Your task to perform on an android device: open app "Grab" (install if not already installed), go to login, and select forgot password Image 0: 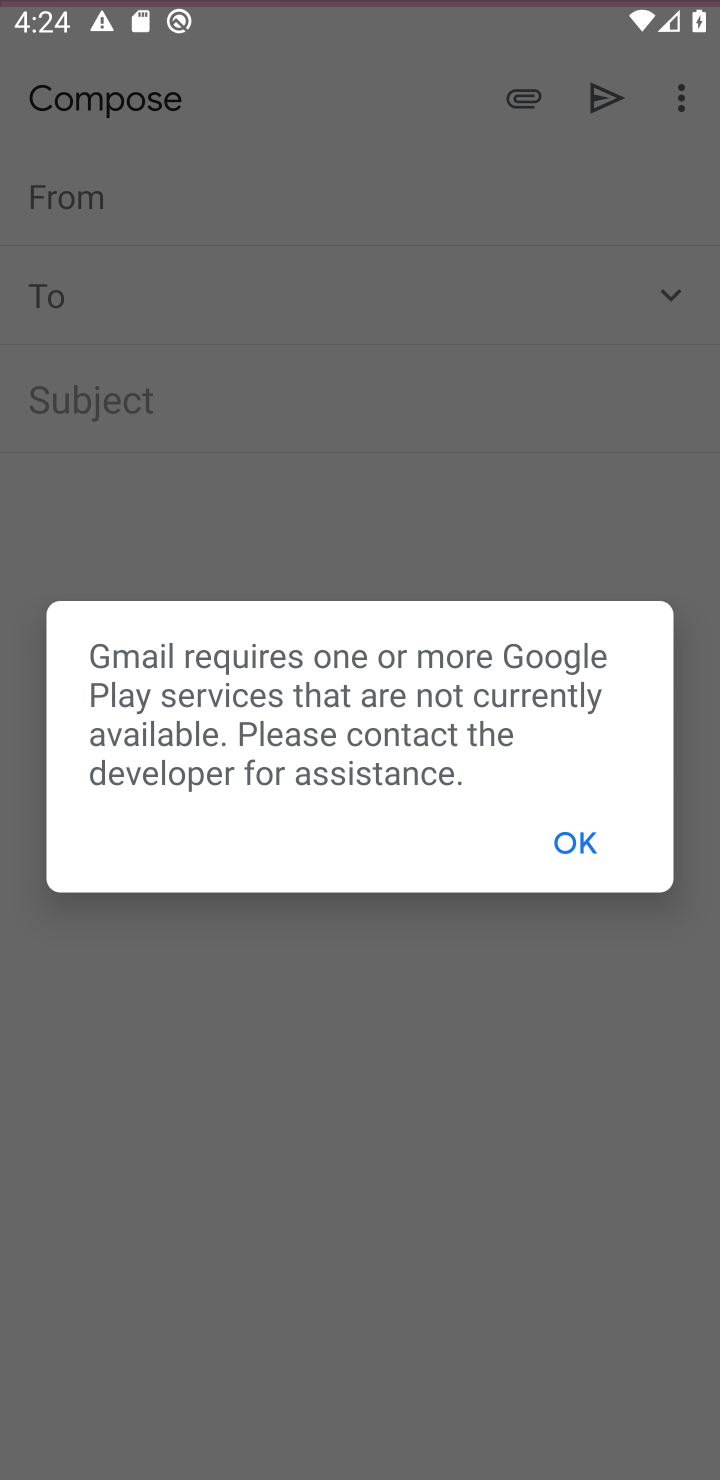
Step 0: press back button
Your task to perform on an android device: open app "Grab" (install if not already installed), go to login, and select forgot password Image 1: 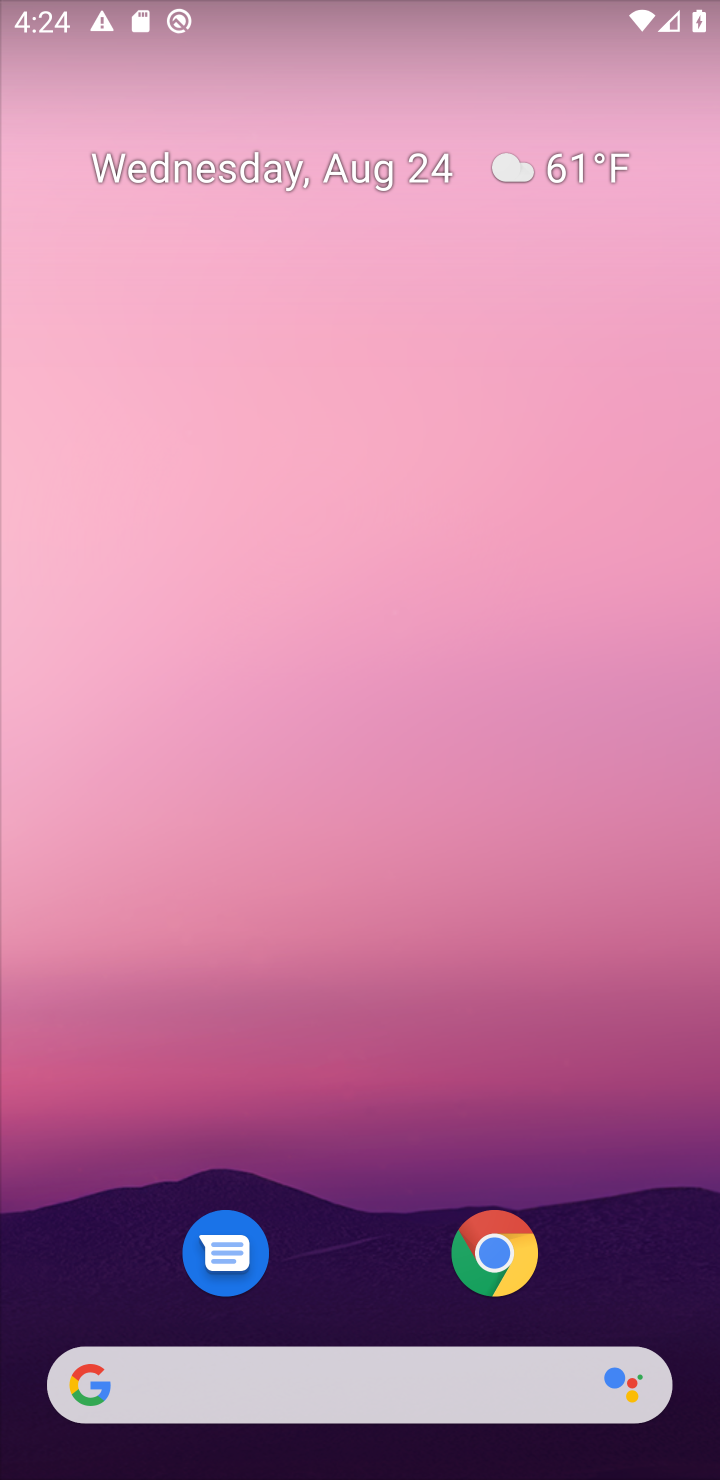
Step 1: drag from (433, 332) to (443, 215)
Your task to perform on an android device: open app "Grab" (install if not already installed), go to login, and select forgot password Image 2: 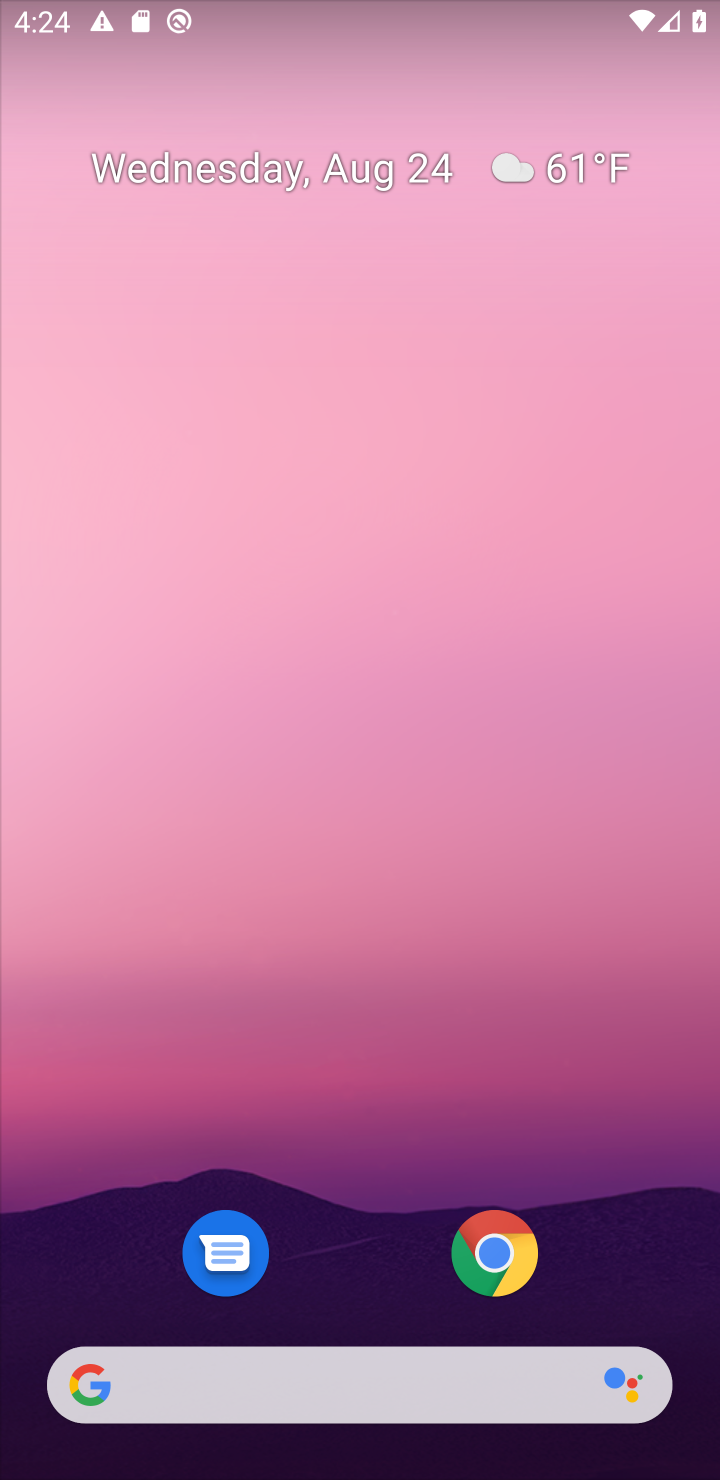
Step 2: drag from (347, 1135) to (436, 176)
Your task to perform on an android device: open app "Grab" (install if not already installed), go to login, and select forgot password Image 3: 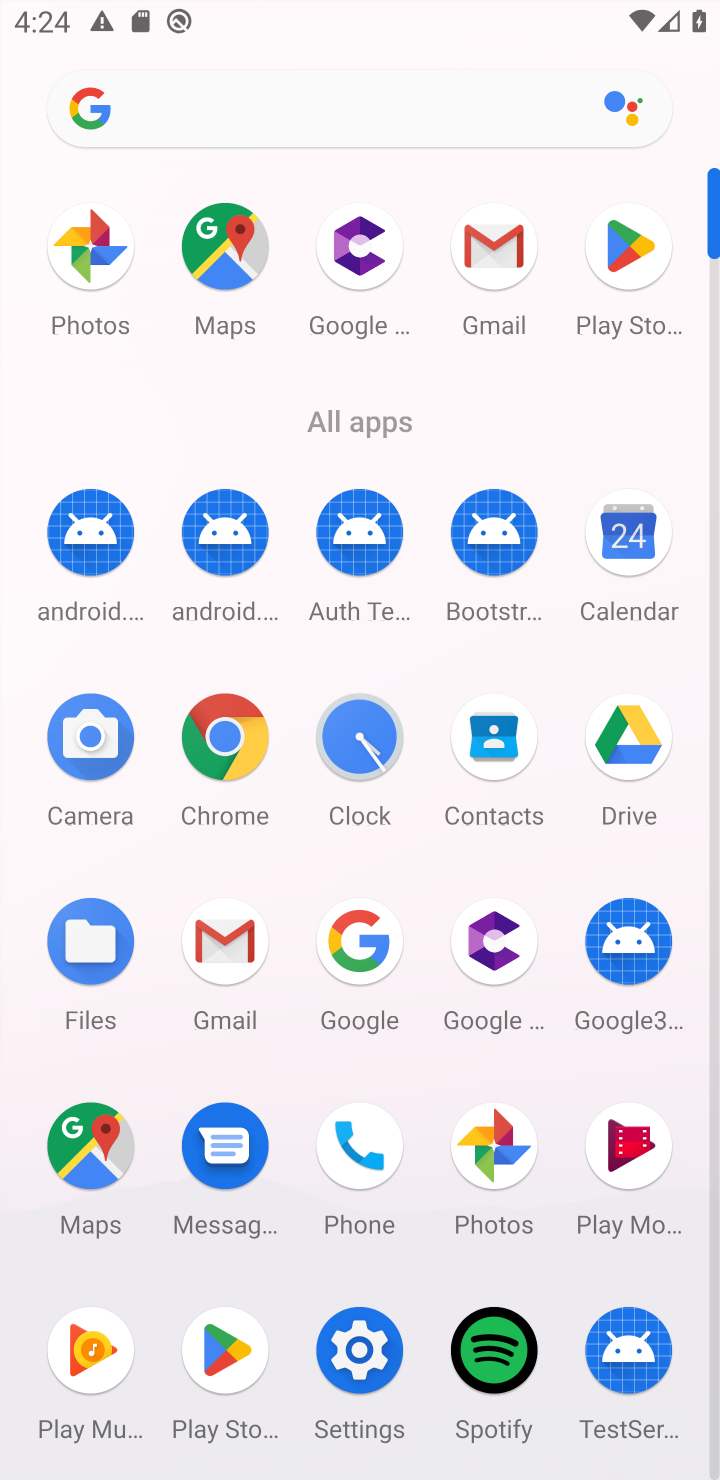
Step 3: click (627, 257)
Your task to perform on an android device: open app "Grab" (install if not already installed), go to login, and select forgot password Image 4: 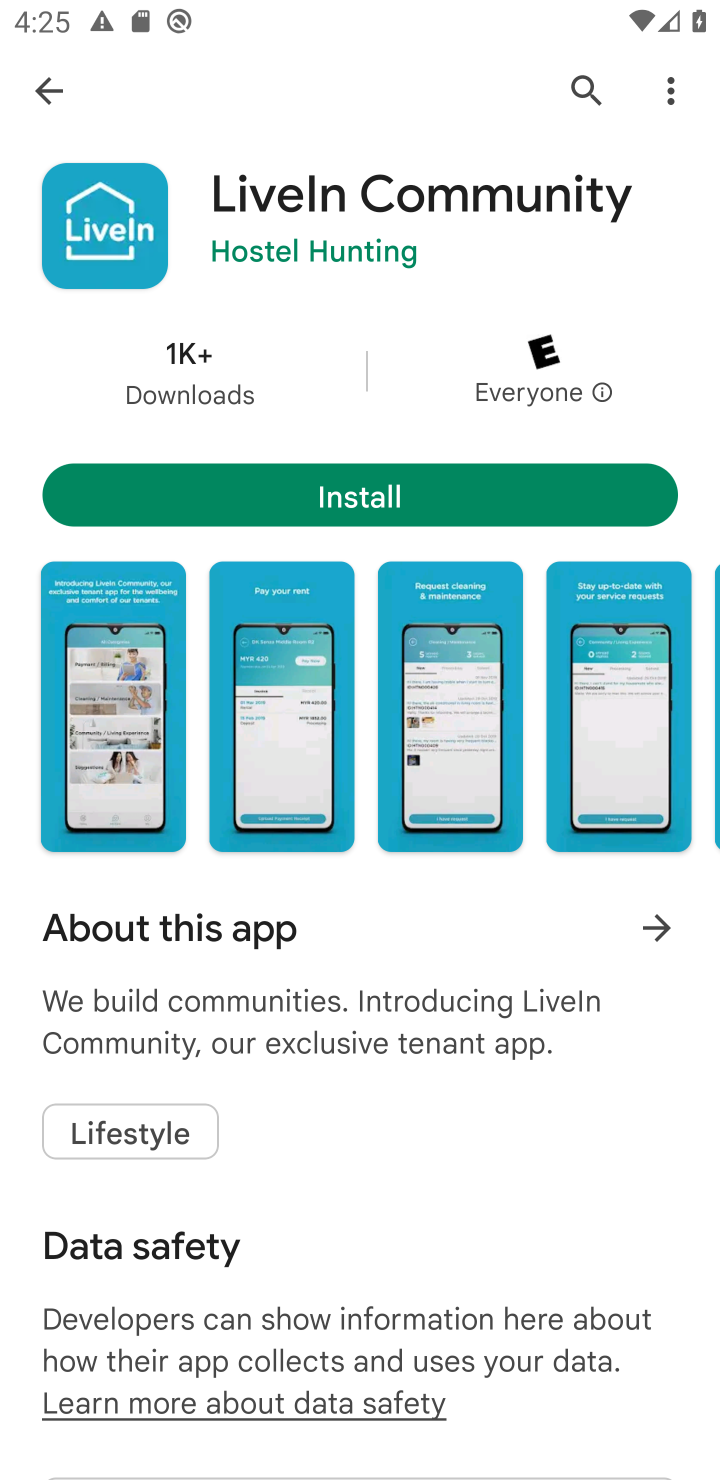
Step 4: click (607, 79)
Your task to perform on an android device: open app "Grab" (install if not already installed), go to login, and select forgot password Image 5: 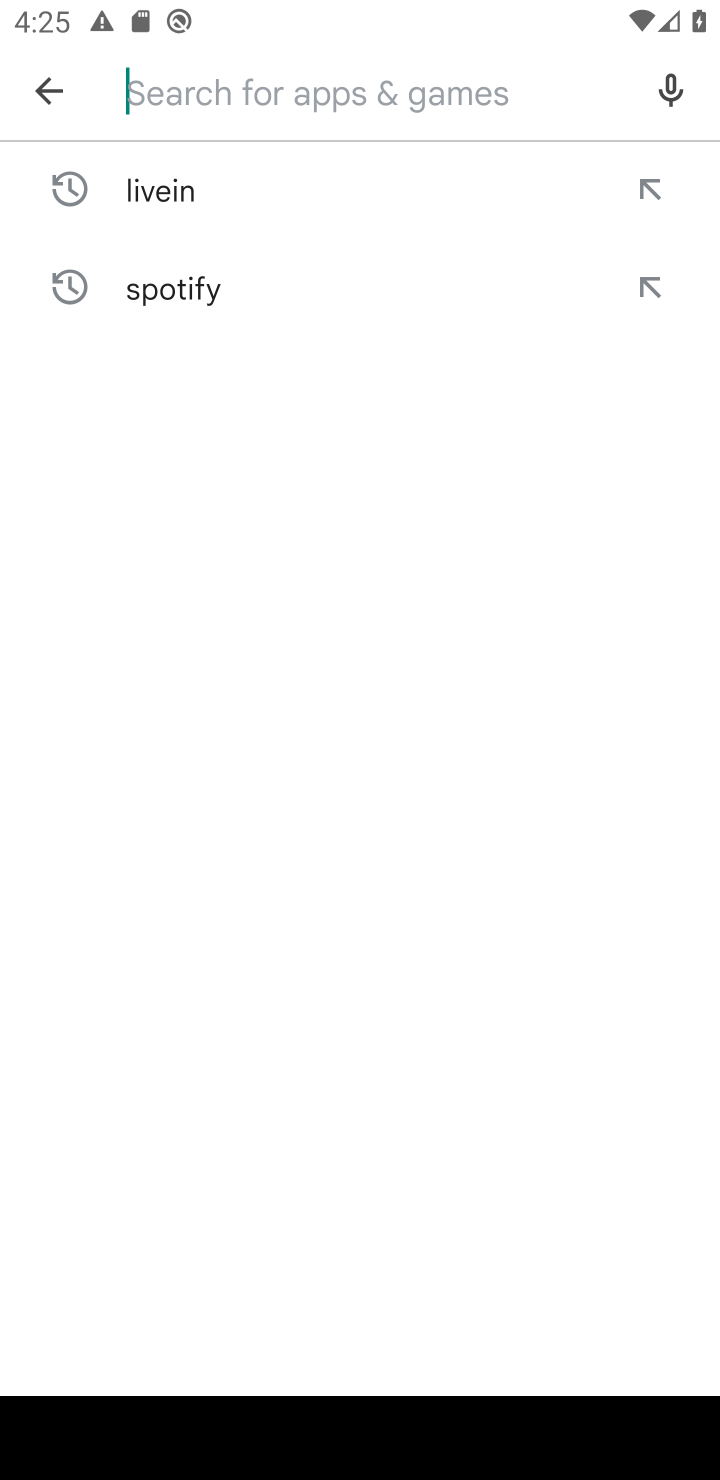
Step 5: click (207, 84)
Your task to perform on an android device: open app "Grab" (install if not already installed), go to login, and select forgot password Image 6: 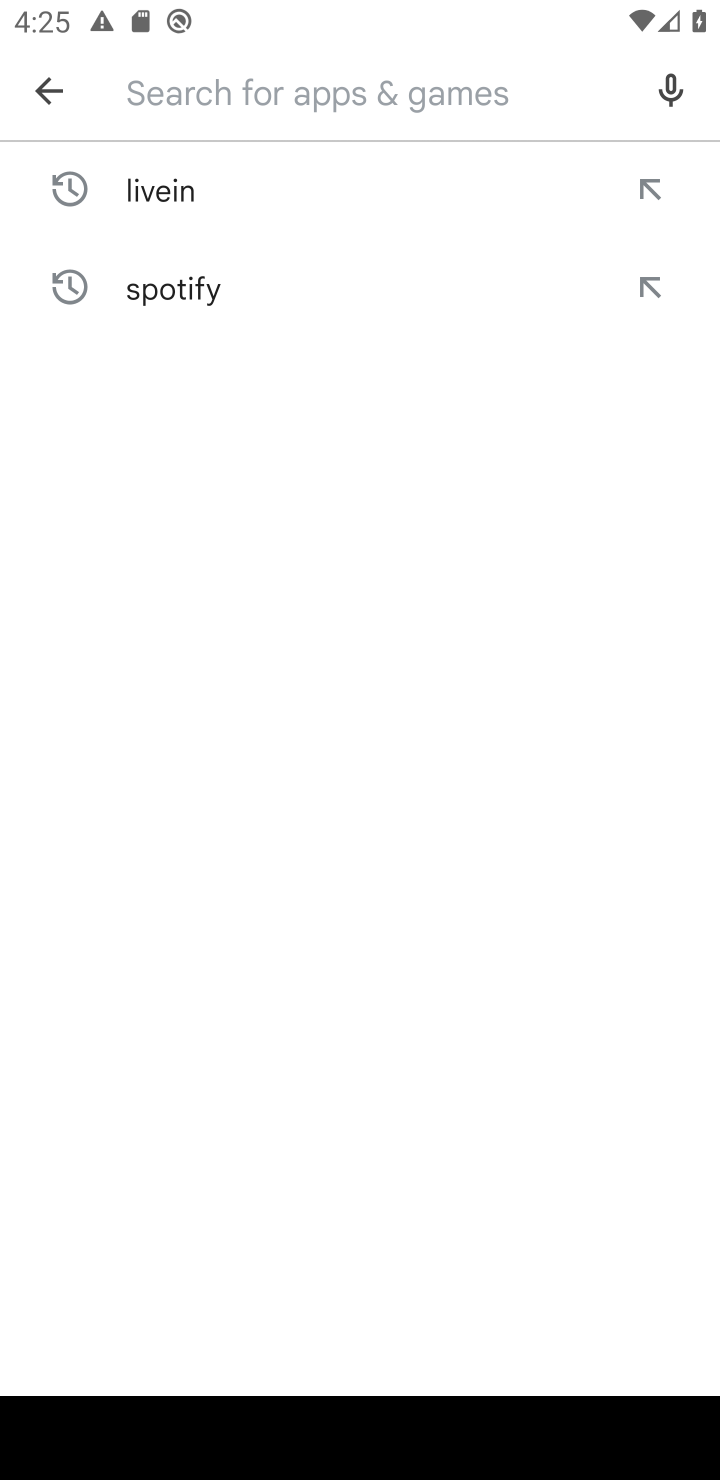
Step 6: type "Grab"
Your task to perform on an android device: open app "Grab" (install if not already installed), go to login, and select forgot password Image 7: 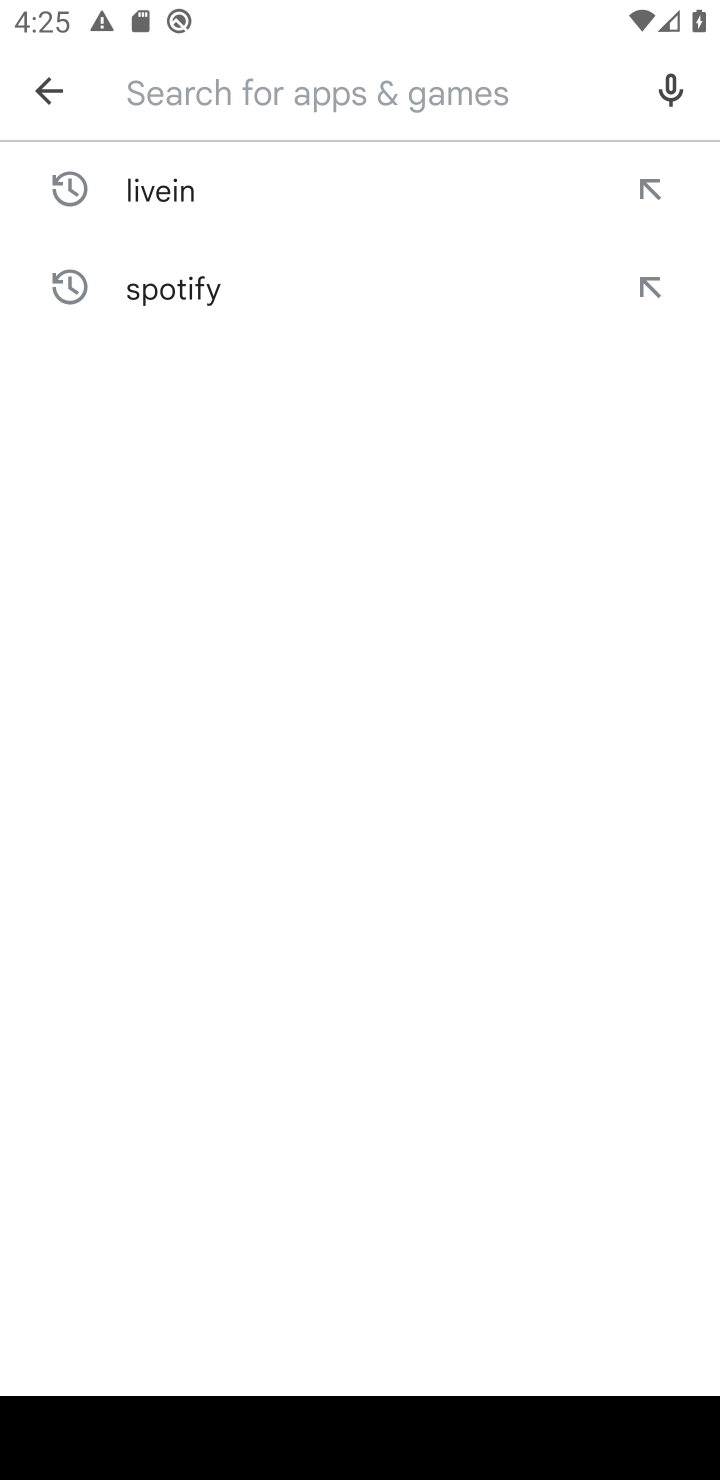
Step 7: click (479, 965)
Your task to perform on an android device: open app "Grab" (install if not already installed), go to login, and select forgot password Image 8: 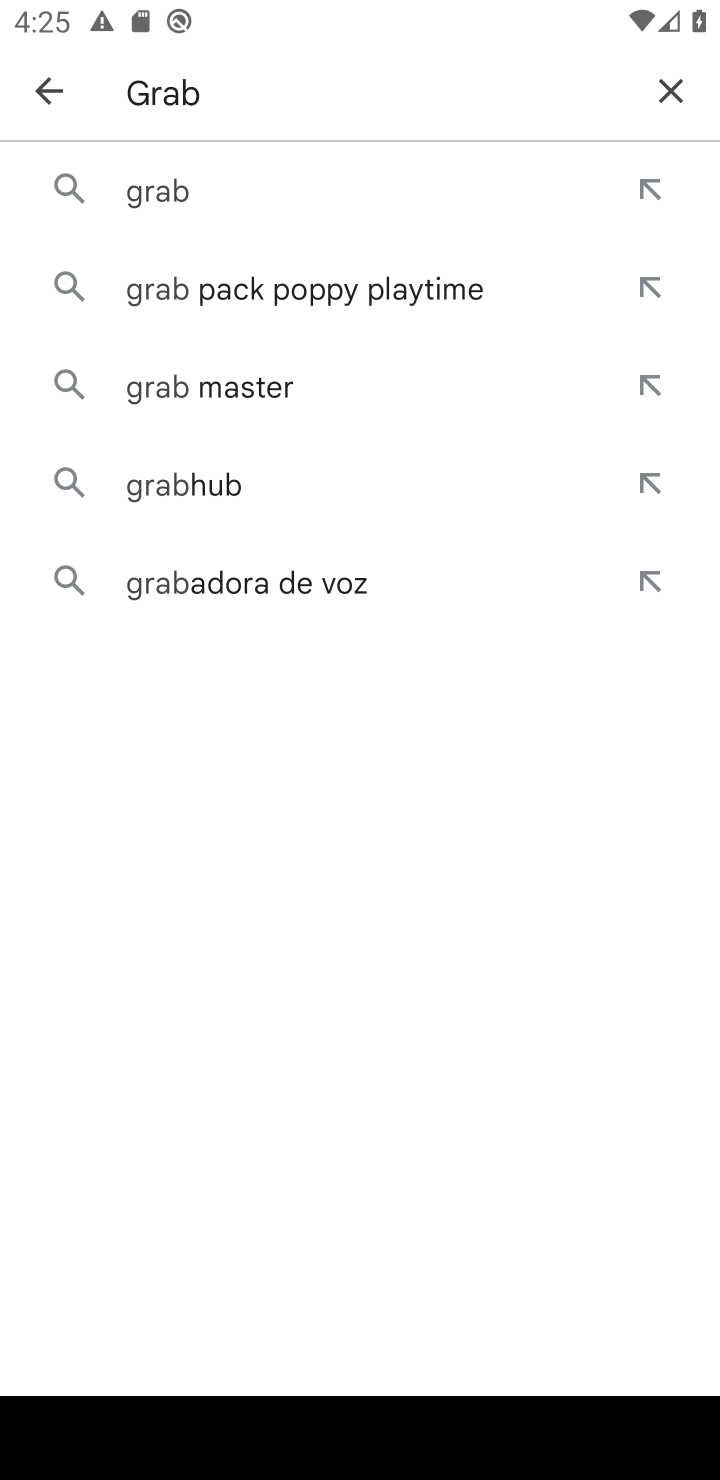
Step 8: click (196, 176)
Your task to perform on an android device: open app "Grab" (install if not already installed), go to login, and select forgot password Image 9: 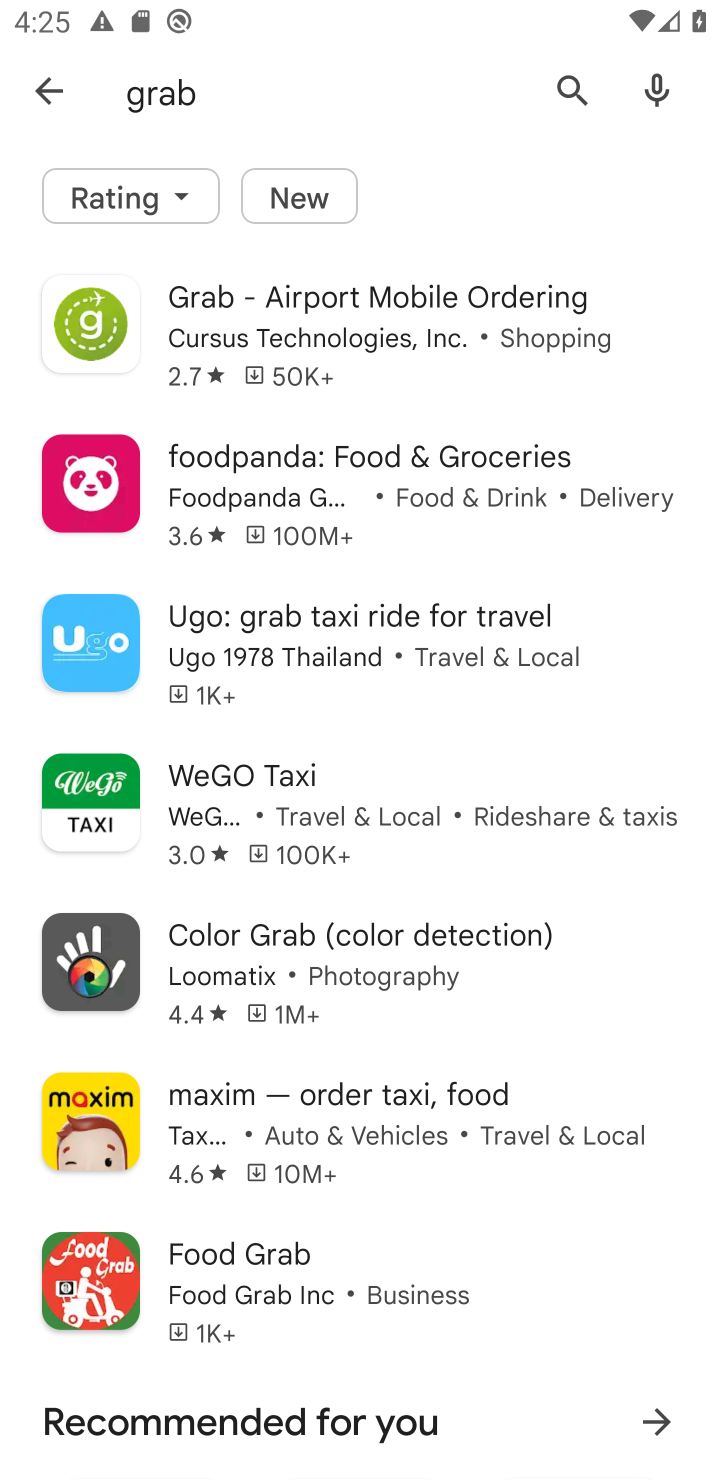
Step 9: click (346, 334)
Your task to perform on an android device: open app "Grab" (install if not already installed), go to login, and select forgot password Image 10: 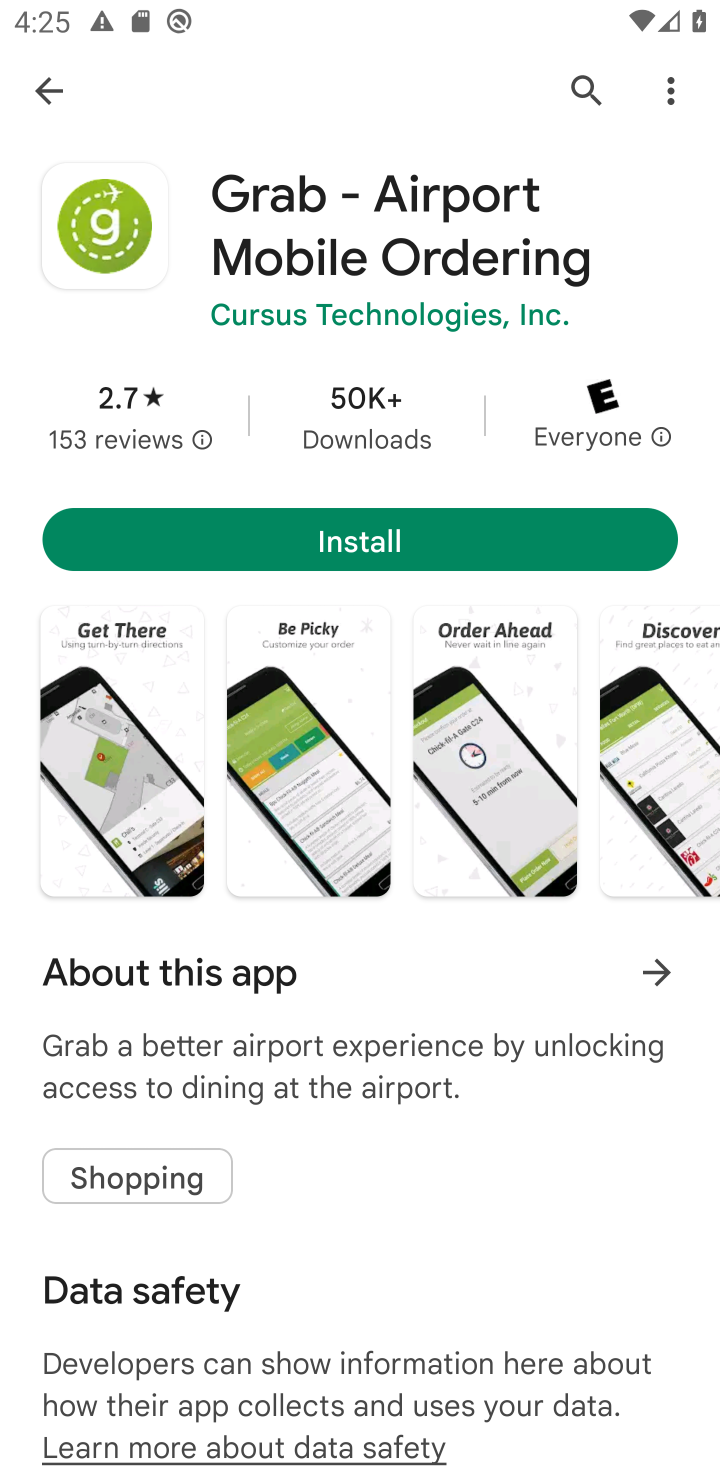
Step 10: click (311, 538)
Your task to perform on an android device: open app "Grab" (install if not already installed), go to login, and select forgot password Image 11: 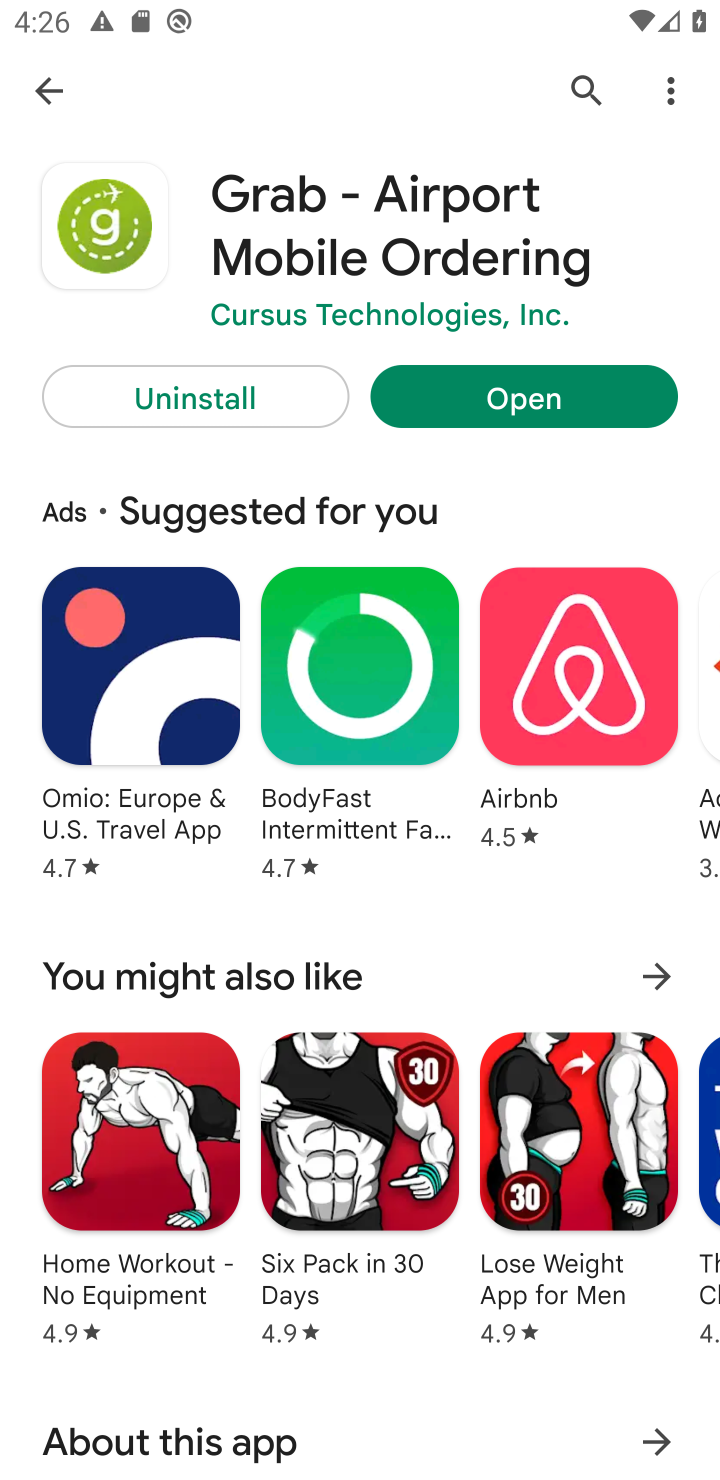
Step 11: click (427, 422)
Your task to perform on an android device: open app "Grab" (install if not already installed), go to login, and select forgot password Image 12: 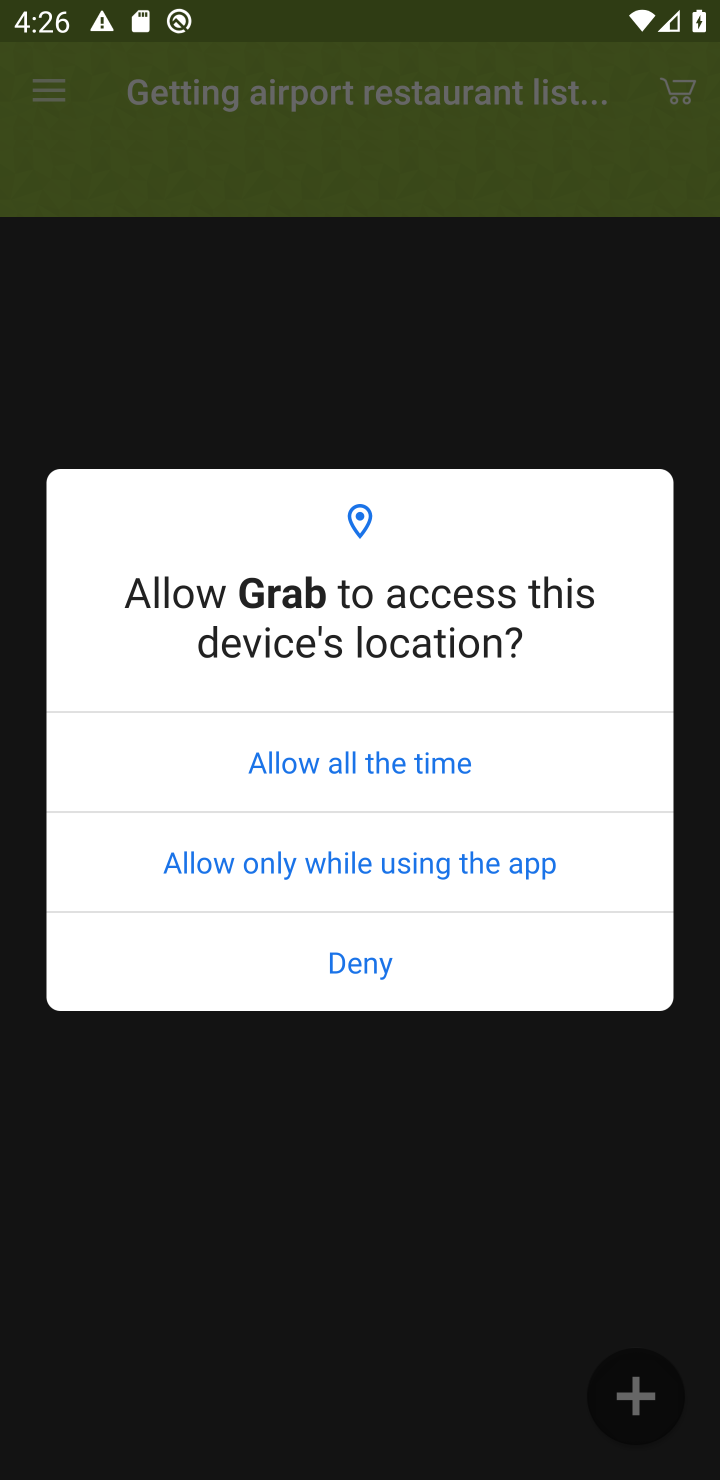
Step 12: click (360, 841)
Your task to perform on an android device: open app "Grab" (install if not already installed), go to login, and select forgot password Image 13: 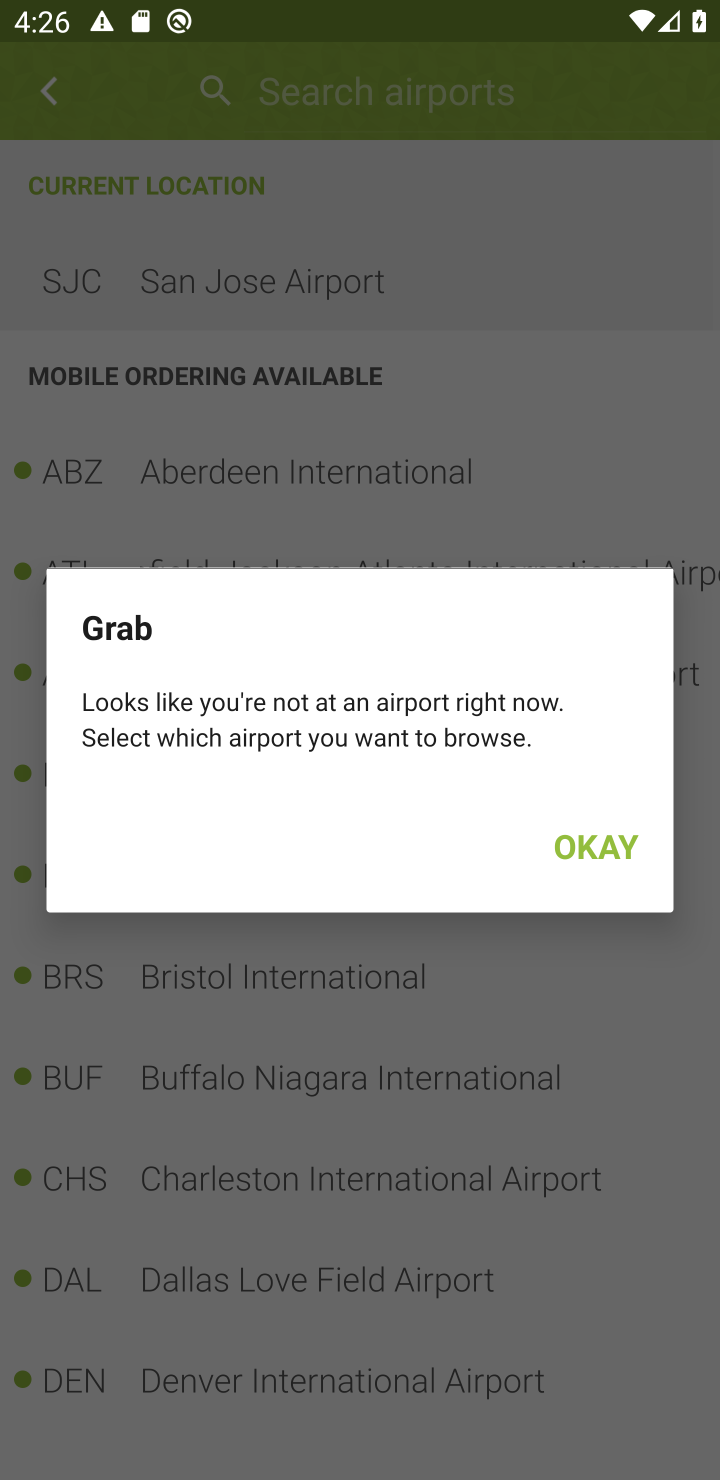
Step 13: click (572, 832)
Your task to perform on an android device: open app "Grab" (install if not already installed), go to login, and select forgot password Image 14: 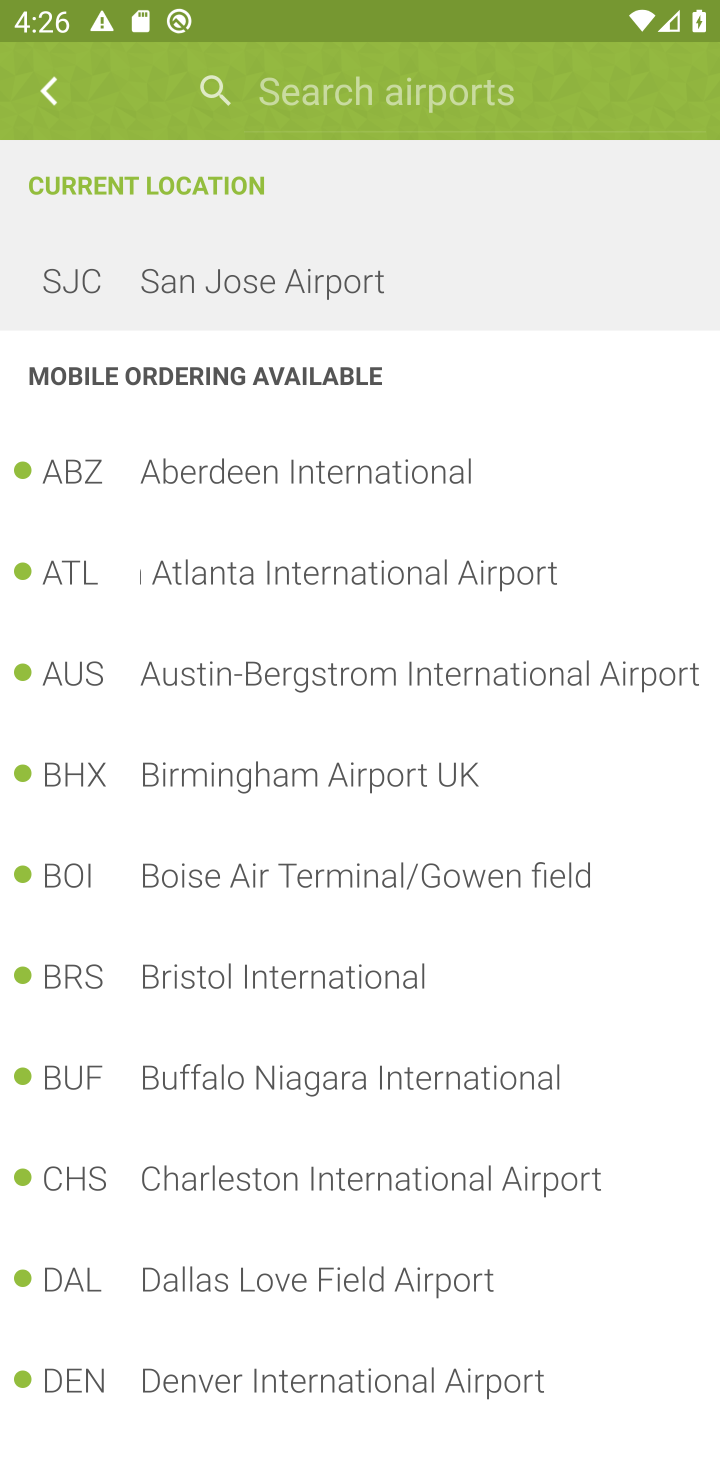
Step 14: click (277, 287)
Your task to perform on an android device: open app "Grab" (install if not already installed), go to login, and select forgot password Image 15: 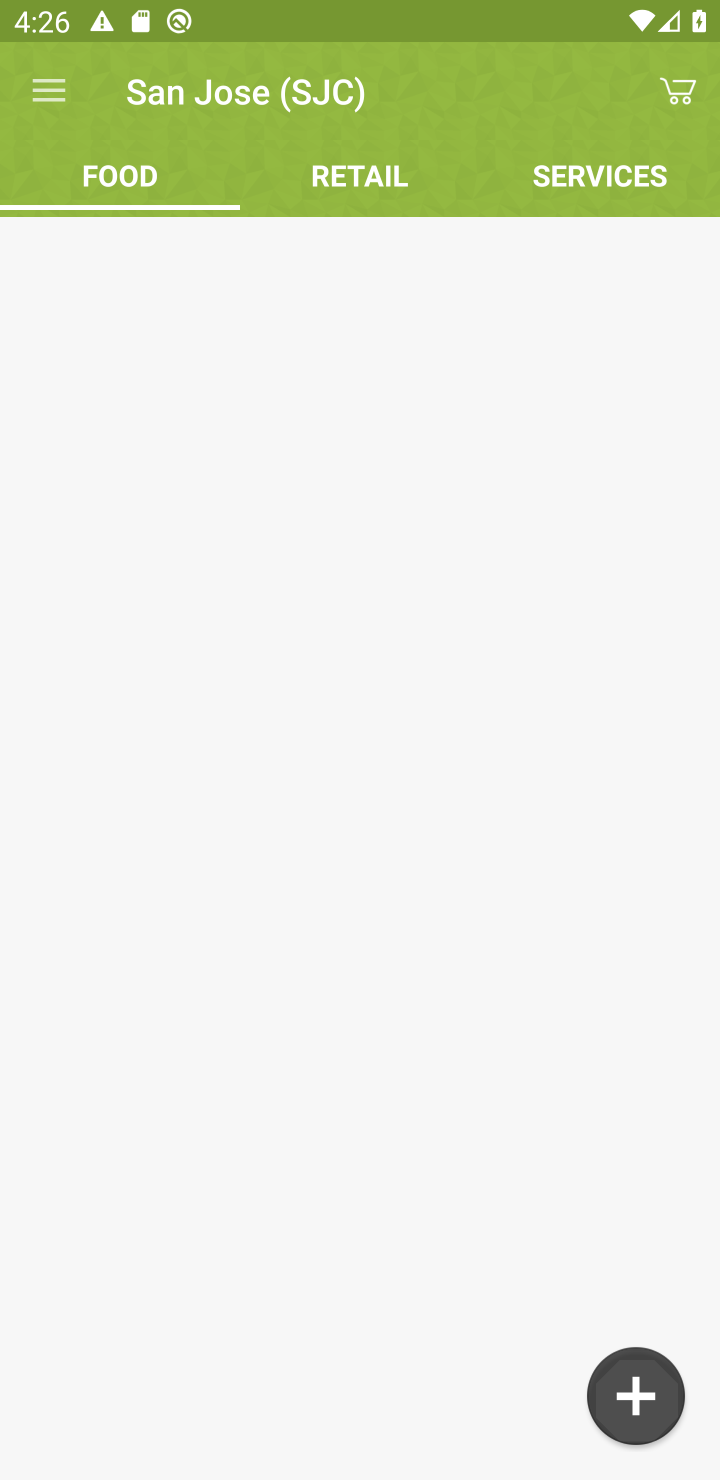
Step 15: click (35, 89)
Your task to perform on an android device: open app "Grab" (install if not already installed), go to login, and select forgot password Image 16: 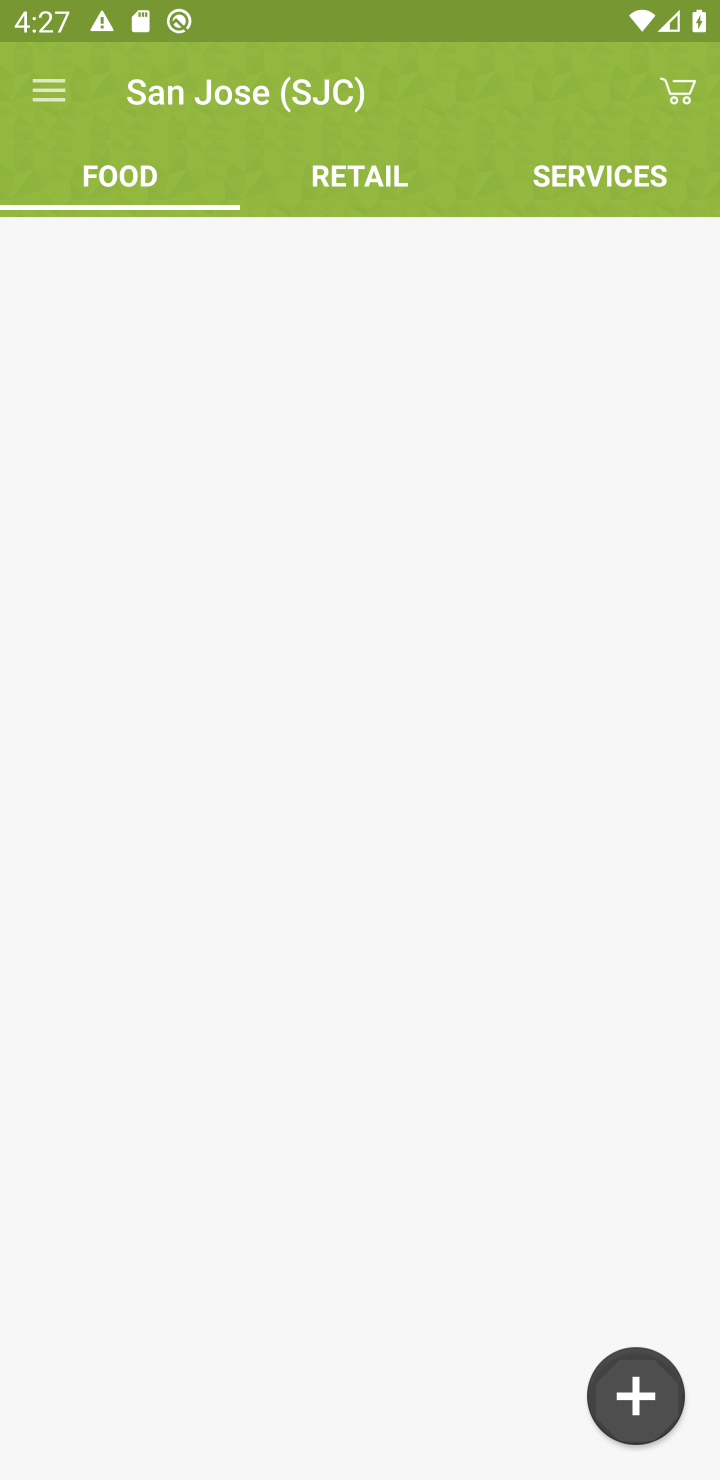
Step 16: click (52, 91)
Your task to perform on an android device: open app "Grab" (install if not already installed), go to login, and select forgot password Image 17: 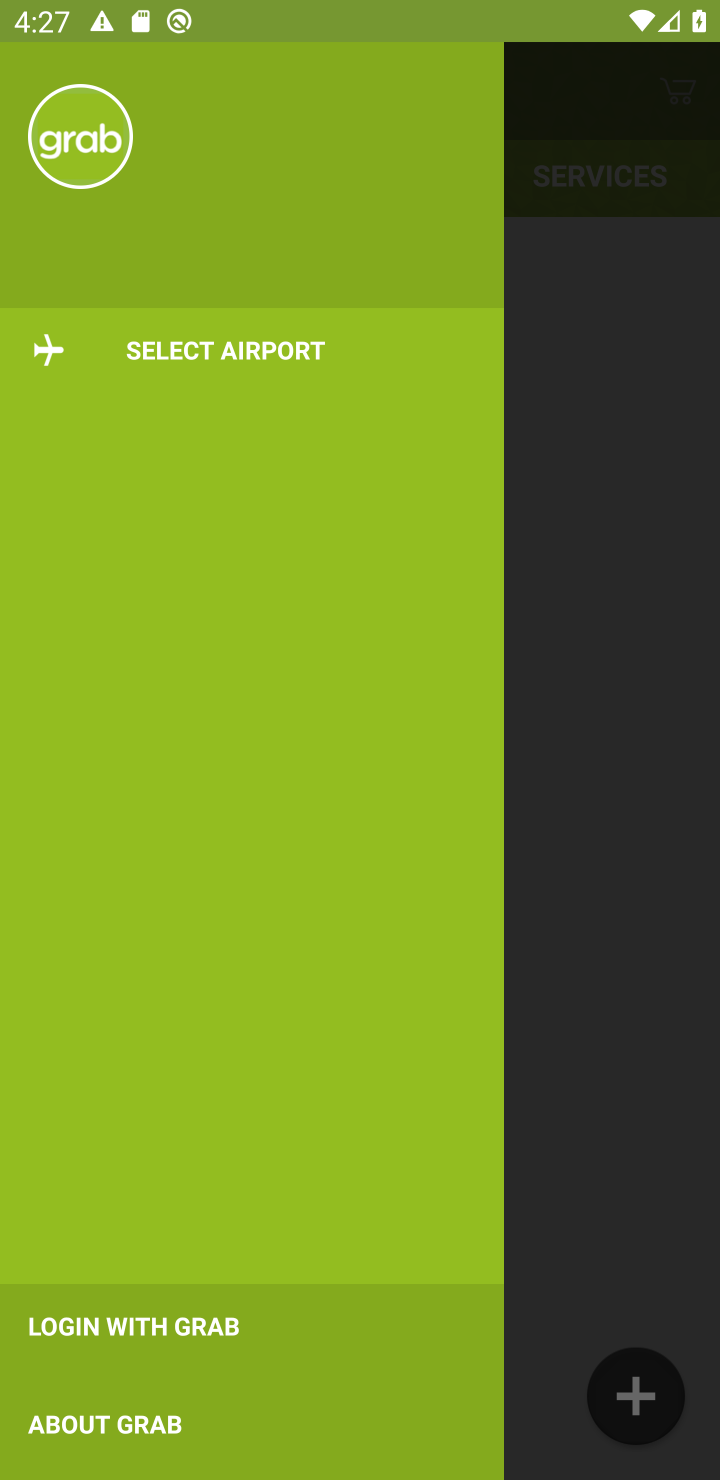
Step 17: click (152, 1315)
Your task to perform on an android device: open app "Grab" (install if not already installed), go to login, and select forgot password Image 18: 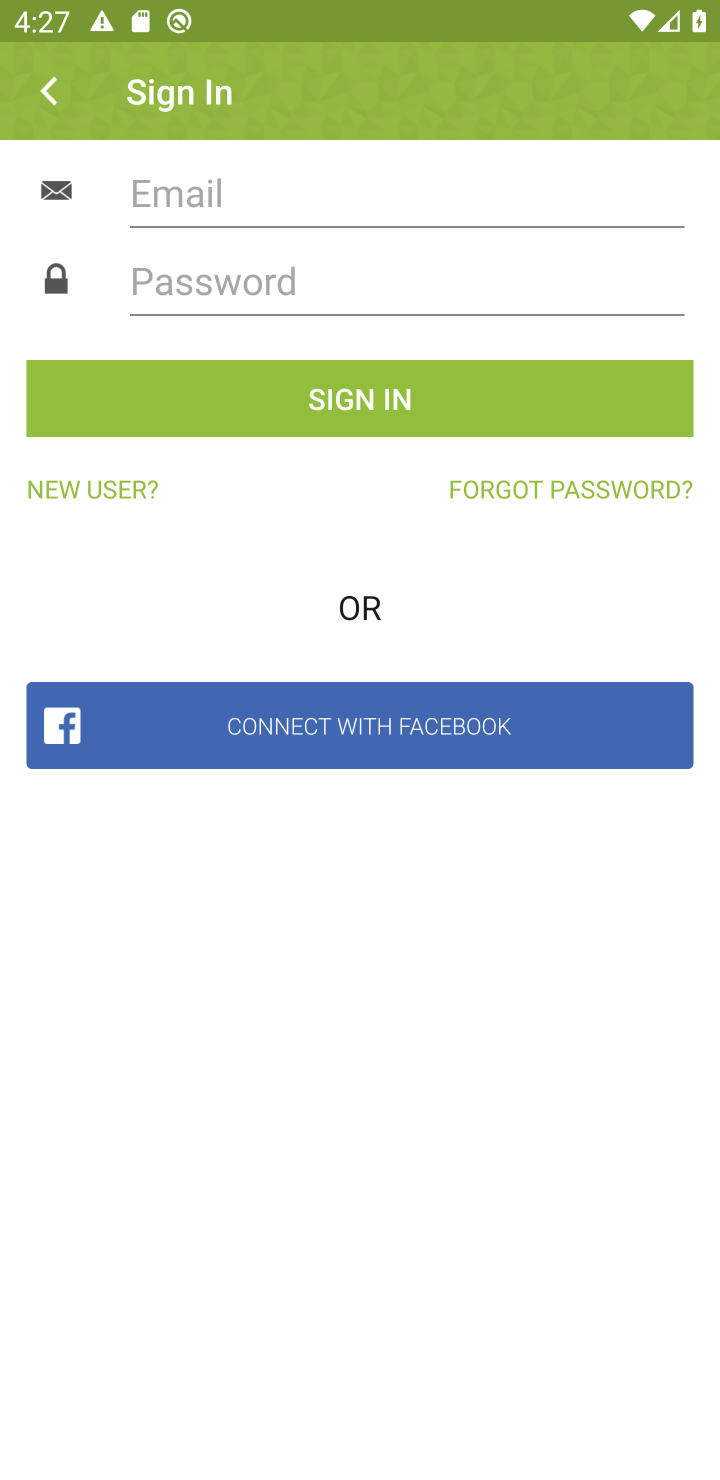
Step 18: click (478, 473)
Your task to perform on an android device: open app "Grab" (install if not already installed), go to login, and select forgot password Image 19: 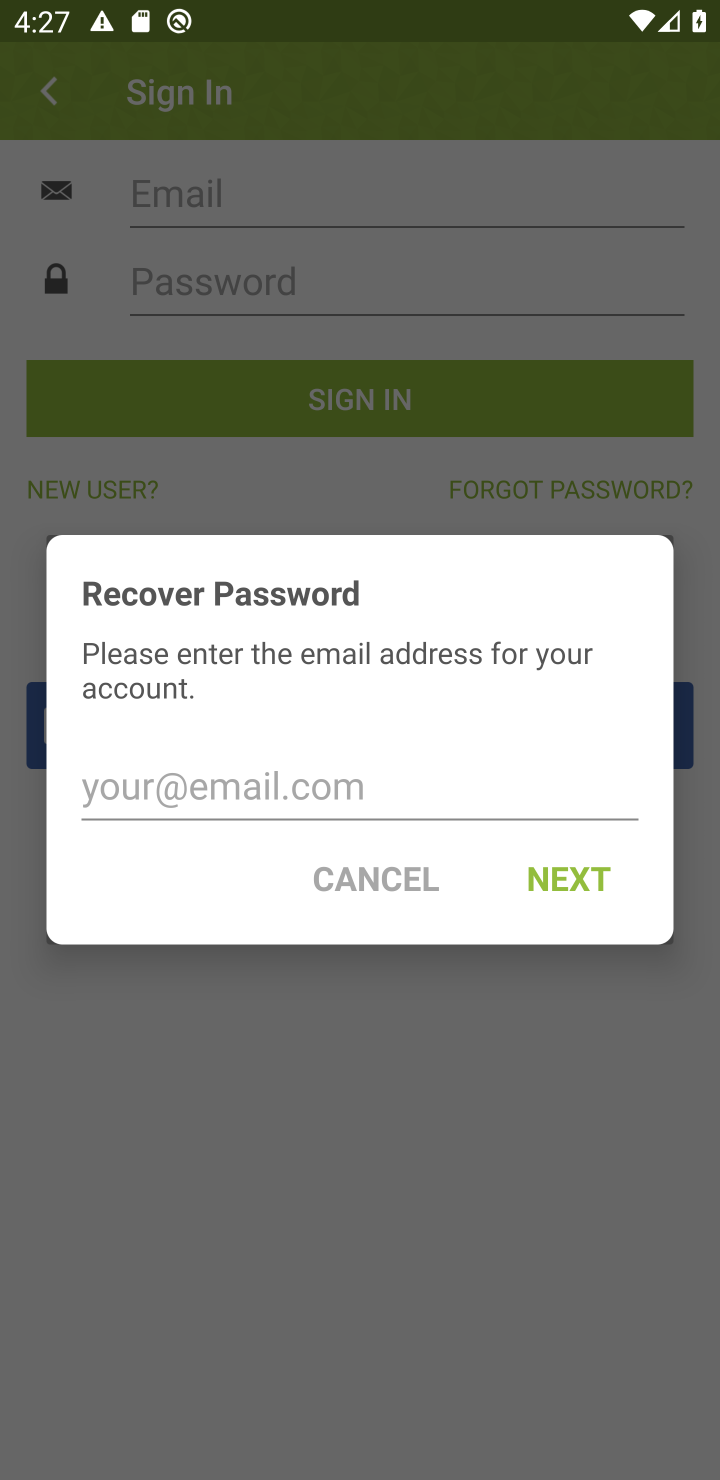
Step 19: task complete